Your task to perform on an android device: change alarm snooze length Image 0: 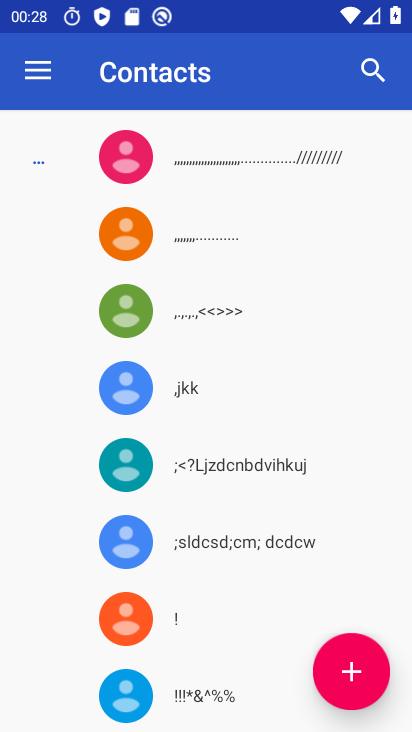
Step 0: press home button
Your task to perform on an android device: change alarm snooze length Image 1: 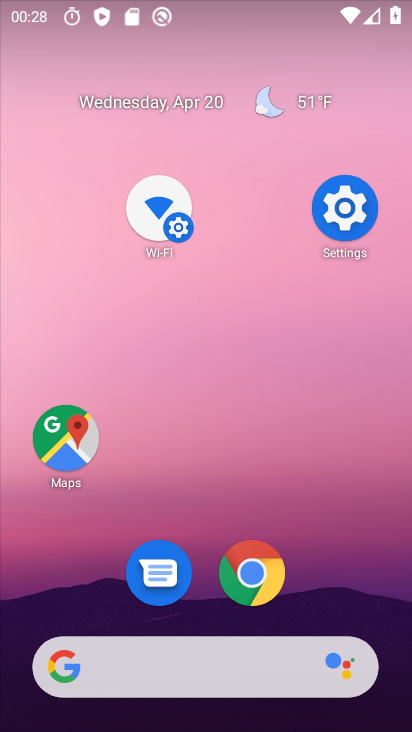
Step 1: drag from (328, 486) to (306, 316)
Your task to perform on an android device: change alarm snooze length Image 2: 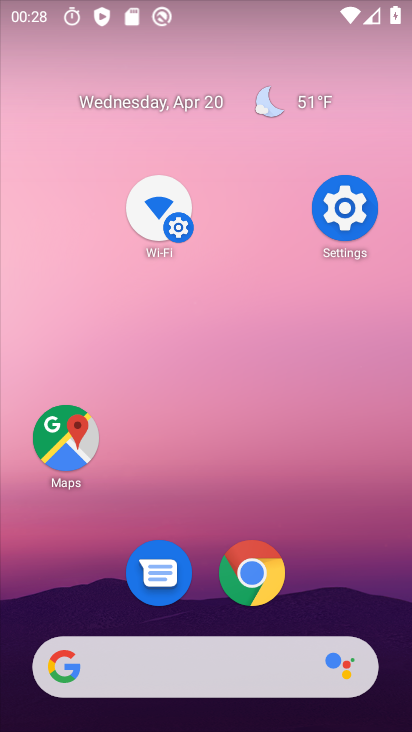
Step 2: drag from (284, 496) to (277, 270)
Your task to perform on an android device: change alarm snooze length Image 3: 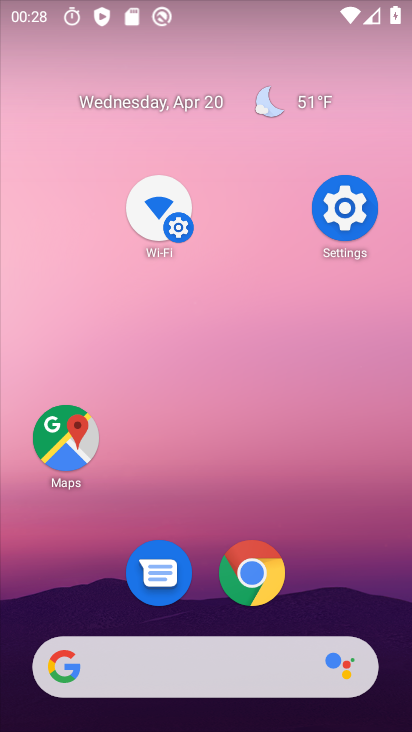
Step 3: drag from (224, 497) to (278, 108)
Your task to perform on an android device: change alarm snooze length Image 4: 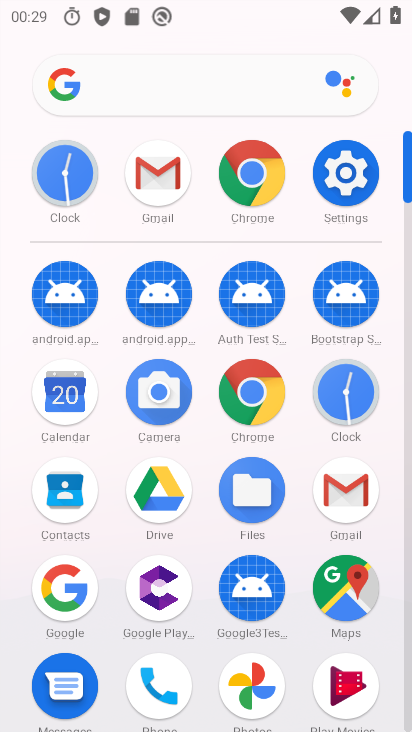
Step 4: click (349, 408)
Your task to perform on an android device: change alarm snooze length Image 5: 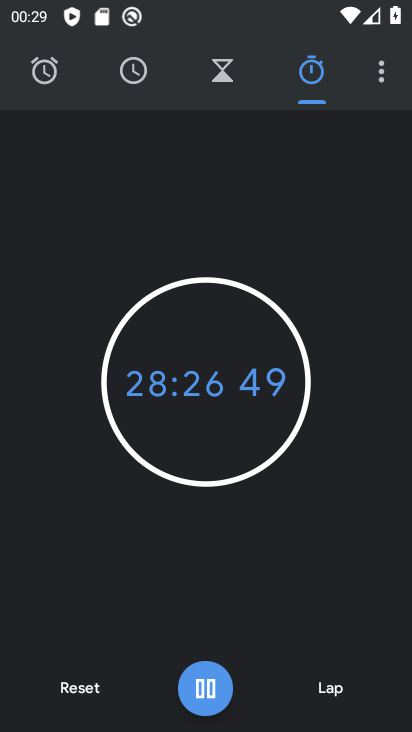
Step 5: click (378, 73)
Your task to perform on an android device: change alarm snooze length Image 6: 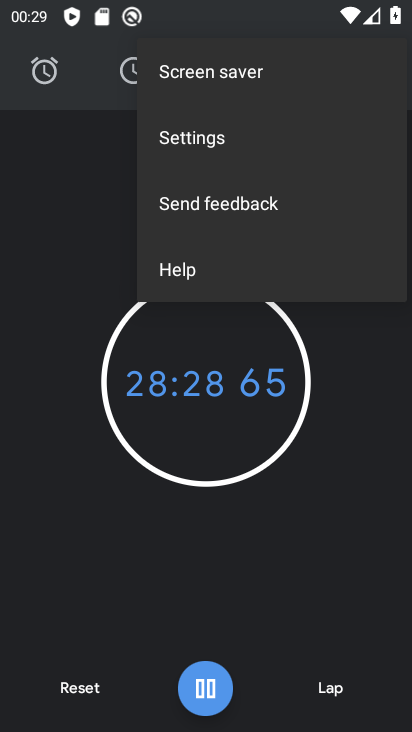
Step 6: click (292, 139)
Your task to perform on an android device: change alarm snooze length Image 7: 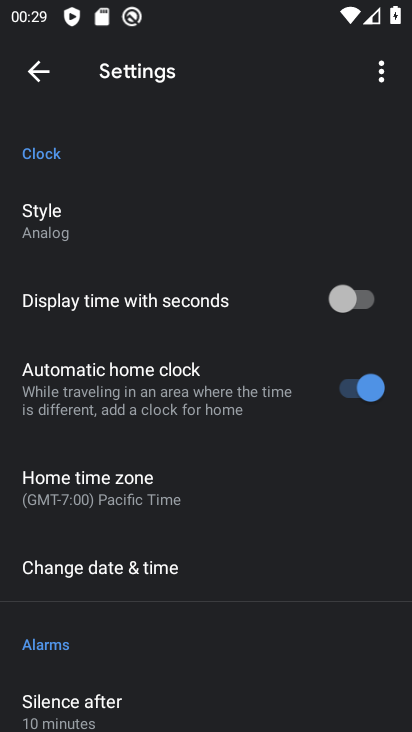
Step 7: drag from (197, 648) to (219, 253)
Your task to perform on an android device: change alarm snooze length Image 8: 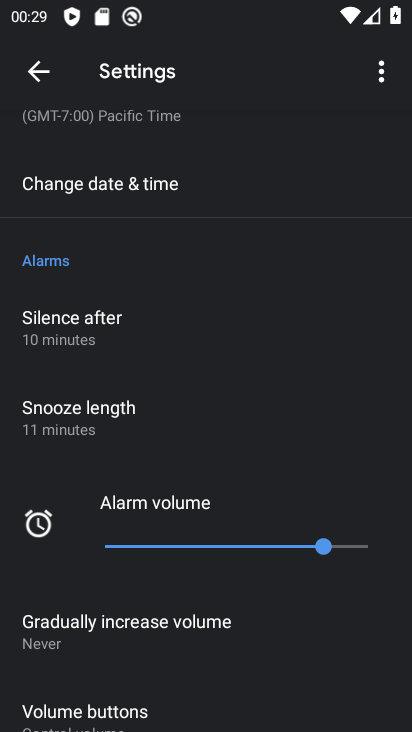
Step 8: click (180, 429)
Your task to perform on an android device: change alarm snooze length Image 9: 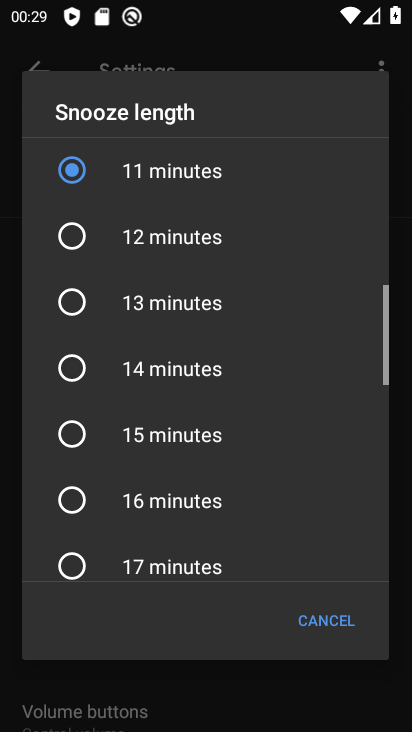
Step 9: click (183, 249)
Your task to perform on an android device: change alarm snooze length Image 10: 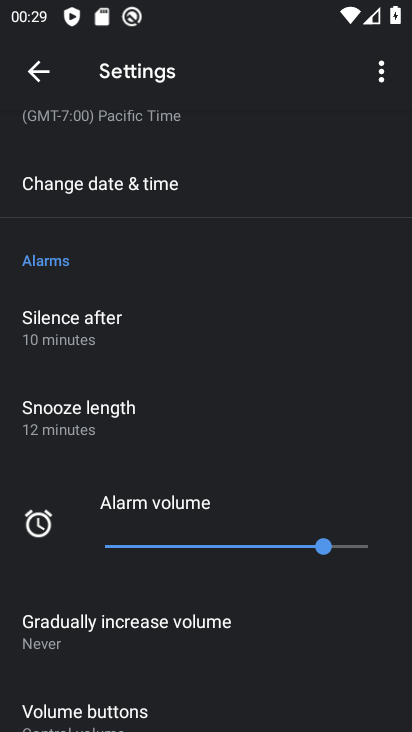
Step 10: task complete